Your task to perform on an android device: Open Google Chrome Image 0: 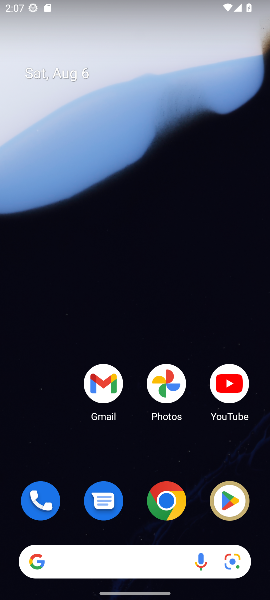
Step 0: press home button
Your task to perform on an android device: Open Google Chrome Image 1: 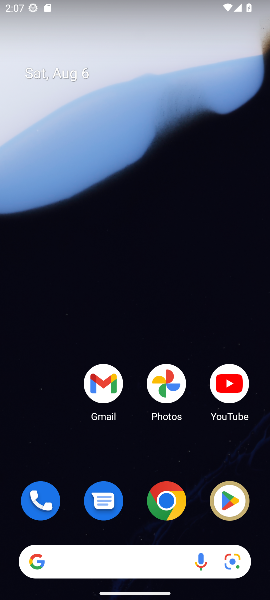
Step 1: click (166, 500)
Your task to perform on an android device: Open Google Chrome Image 2: 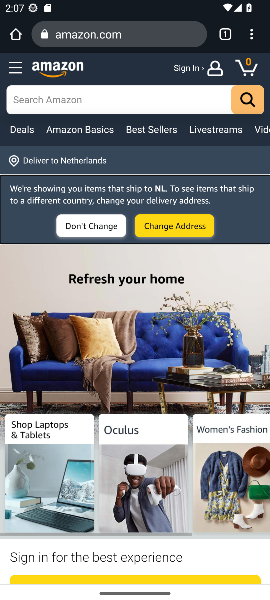
Step 2: click (229, 39)
Your task to perform on an android device: Open Google Chrome Image 3: 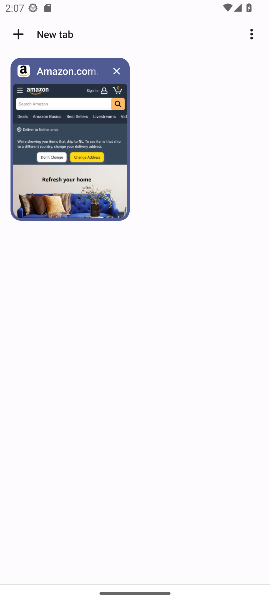
Step 3: click (21, 33)
Your task to perform on an android device: Open Google Chrome Image 4: 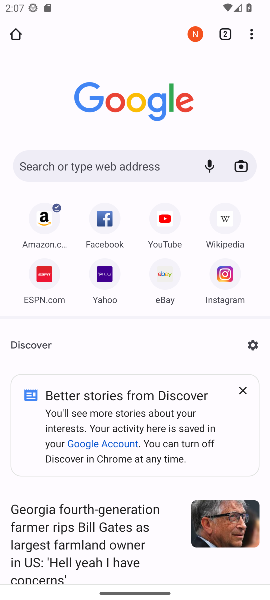
Step 4: task complete